Your task to perform on an android device: add a contact Image 0: 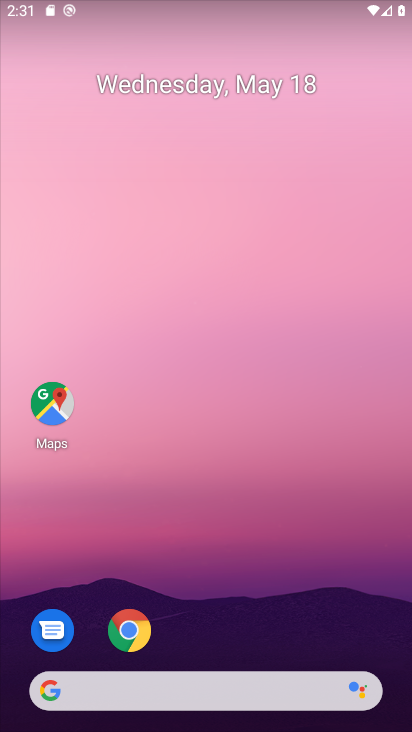
Step 0: press home button
Your task to perform on an android device: add a contact Image 1: 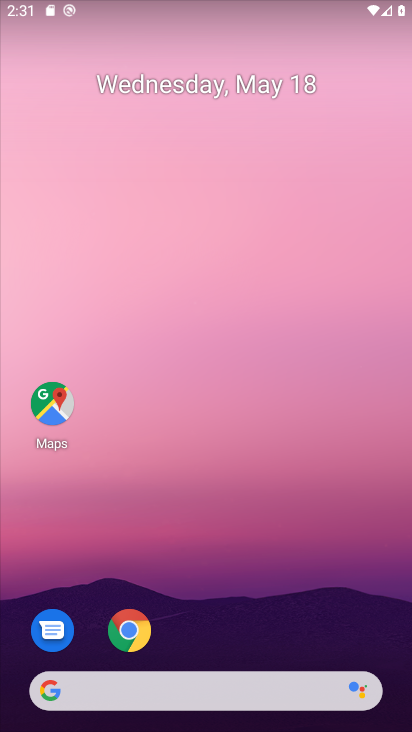
Step 1: drag from (225, 649) to (278, 56)
Your task to perform on an android device: add a contact Image 2: 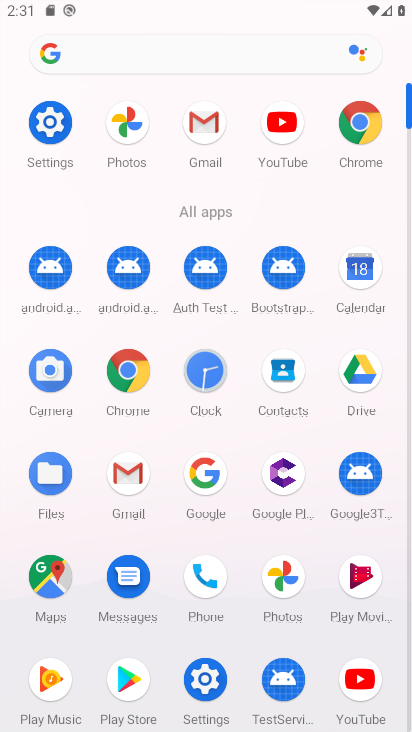
Step 2: click (282, 369)
Your task to perform on an android device: add a contact Image 3: 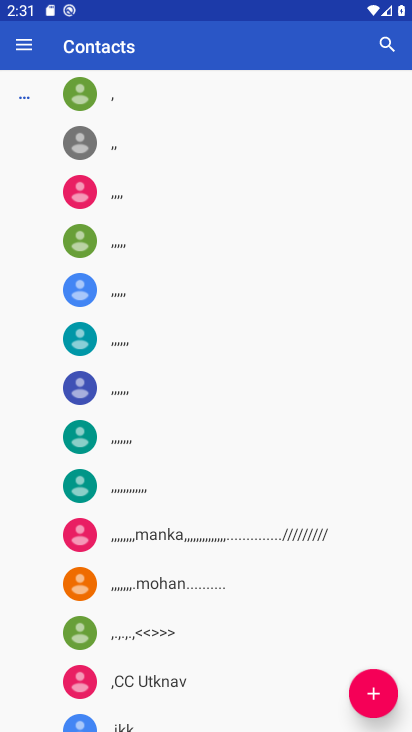
Step 3: click (366, 697)
Your task to perform on an android device: add a contact Image 4: 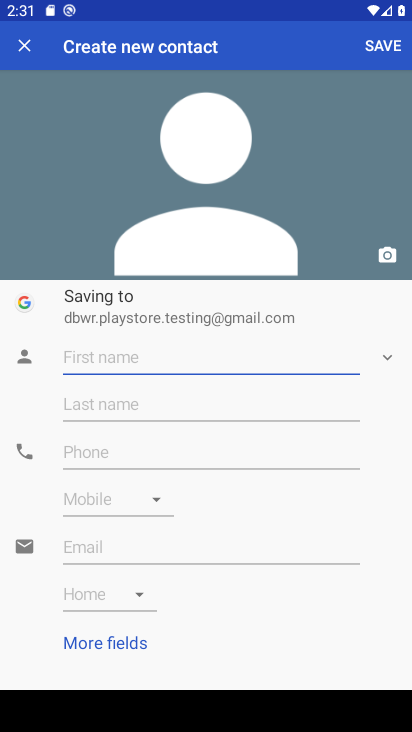
Step 4: type ""
Your task to perform on an android device: add a contact Image 5: 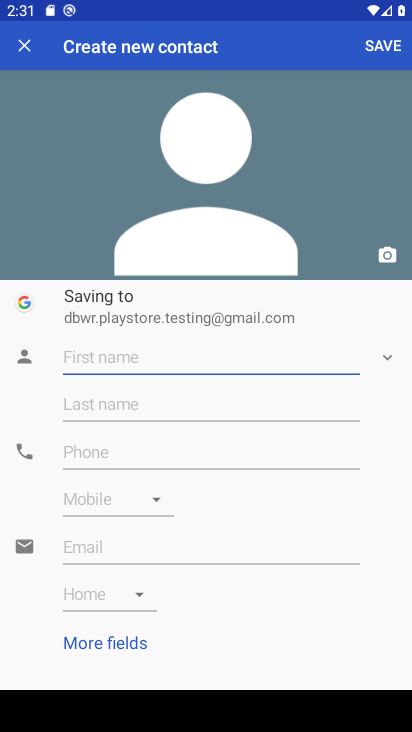
Step 5: type "kmjhbgfcdfg"
Your task to perform on an android device: add a contact Image 6: 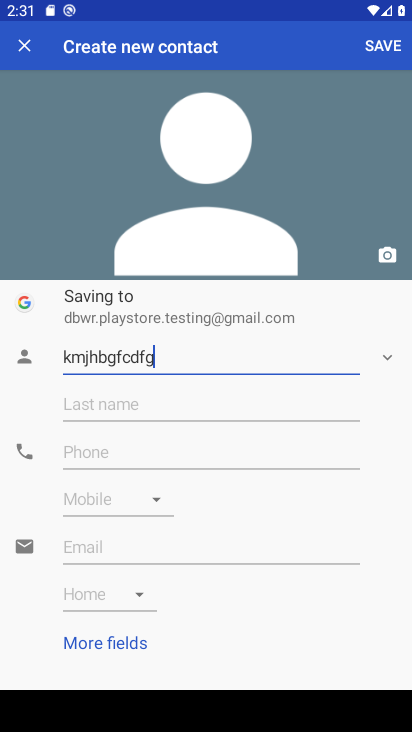
Step 6: click (383, 44)
Your task to perform on an android device: add a contact Image 7: 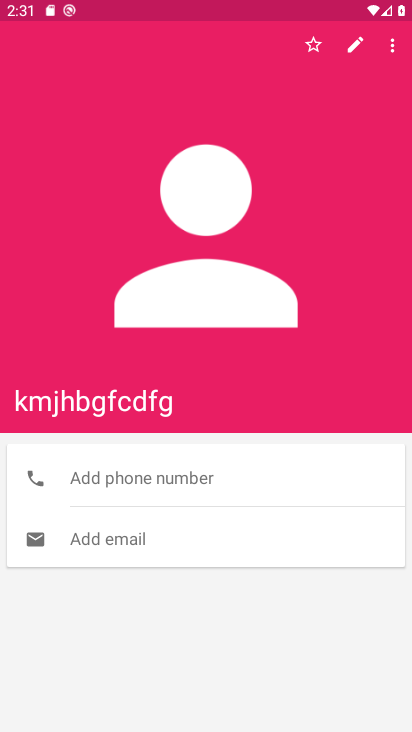
Step 7: task complete